Your task to perform on an android device: Set the phone to "Do not disturb". Image 0: 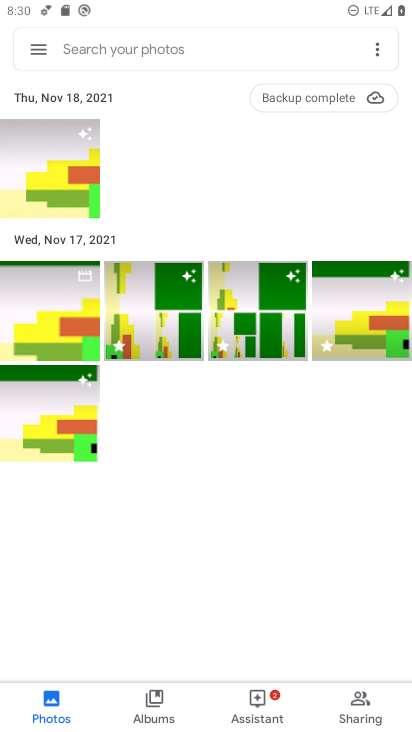
Step 0: press home button
Your task to perform on an android device: Set the phone to "Do not disturb". Image 1: 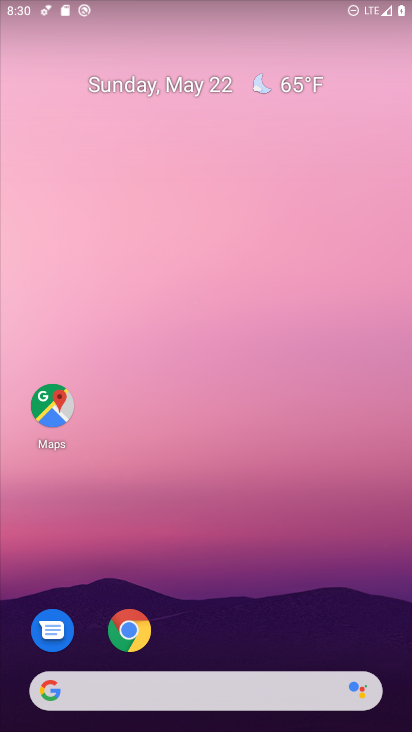
Step 1: drag from (186, 667) to (278, 278)
Your task to perform on an android device: Set the phone to "Do not disturb". Image 2: 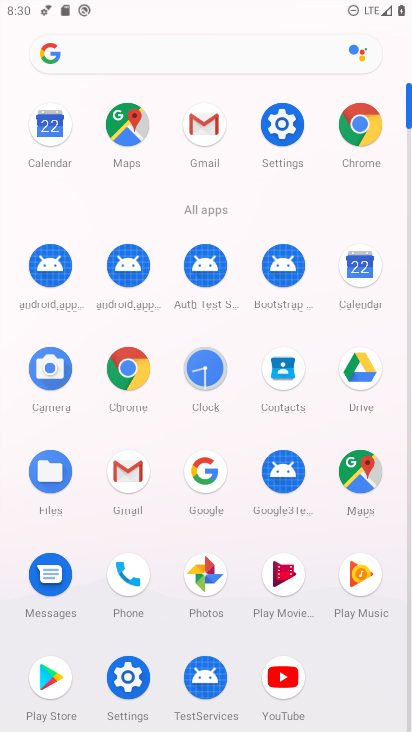
Step 2: click (280, 127)
Your task to perform on an android device: Set the phone to "Do not disturb". Image 3: 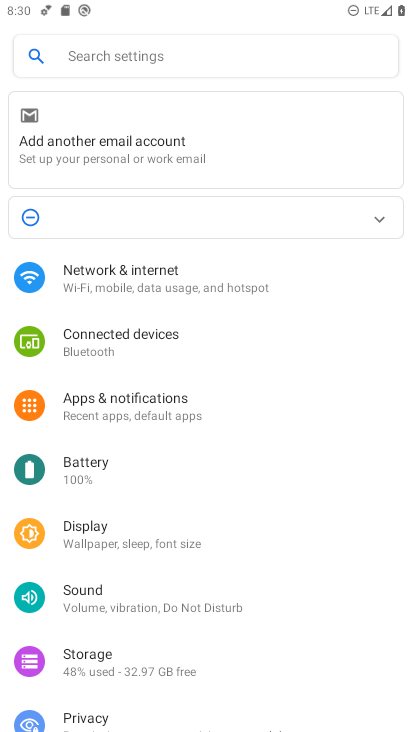
Step 3: click (95, 599)
Your task to perform on an android device: Set the phone to "Do not disturb". Image 4: 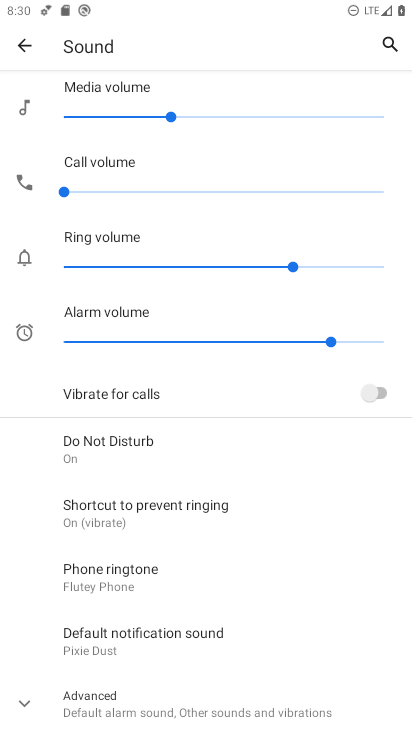
Step 4: click (116, 449)
Your task to perform on an android device: Set the phone to "Do not disturb". Image 5: 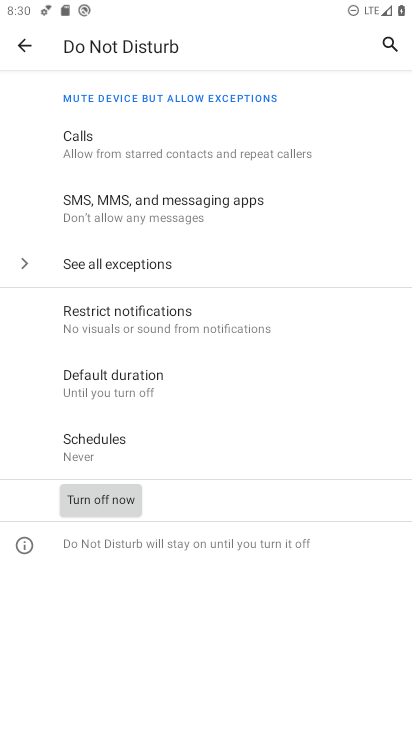
Step 5: task complete